Your task to perform on an android device: Open Yahoo.com Image 0: 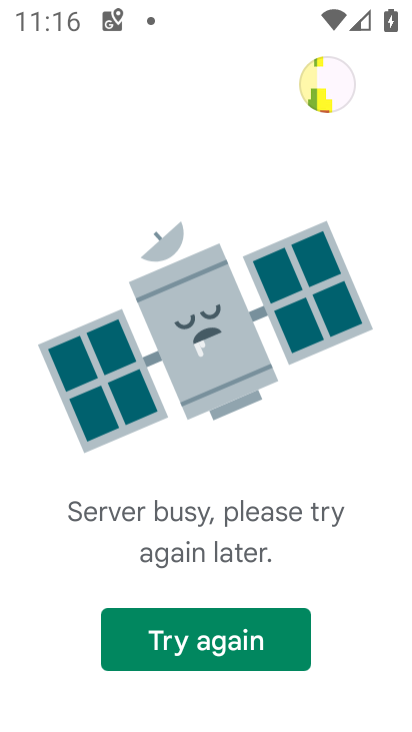
Step 0: press home button
Your task to perform on an android device: Open Yahoo.com Image 1: 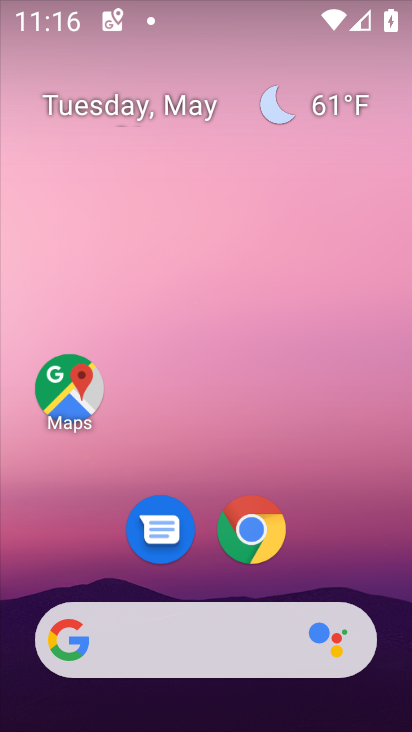
Step 1: drag from (358, 586) to (237, 261)
Your task to perform on an android device: Open Yahoo.com Image 2: 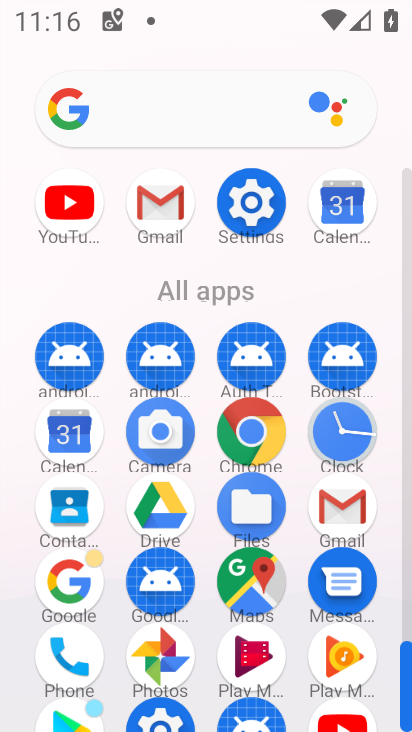
Step 2: click (251, 439)
Your task to perform on an android device: Open Yahoo.com Image 3: 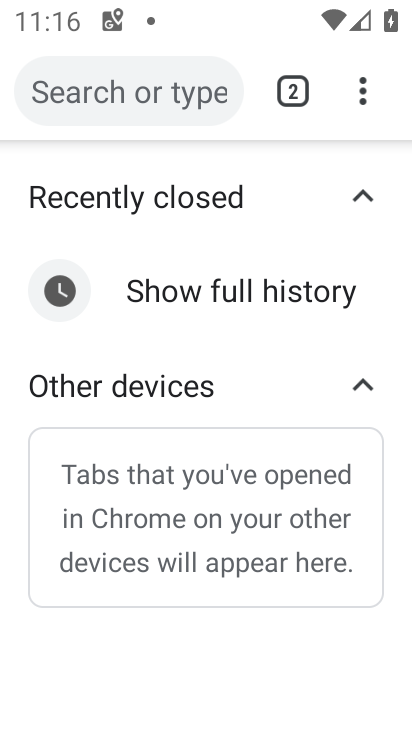
Step 3: click (294, 101)
Your task to perform on an android device: Open Yahoo.com Image 4: 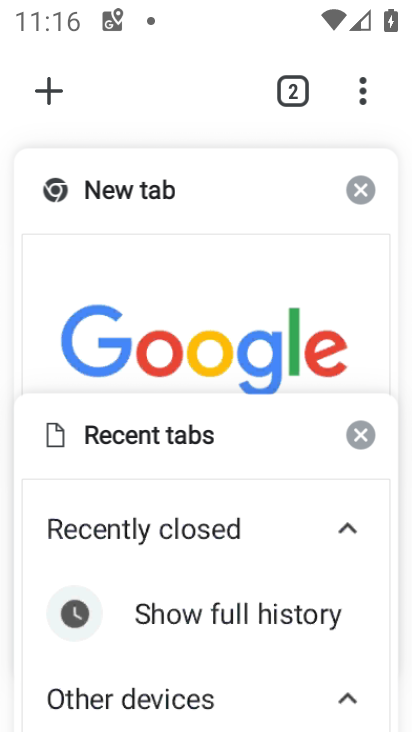
Step 4: click (117, 259)
Your task to perform on an android device: Open Yahoo.com Image 5: 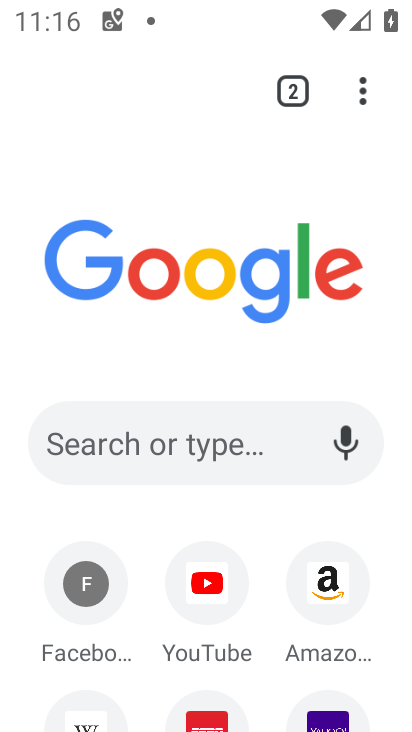
Step 5: drag from (205, 539) to (166, 177)
Your task to perform on an android device: Open Yahoo.com Image 6: 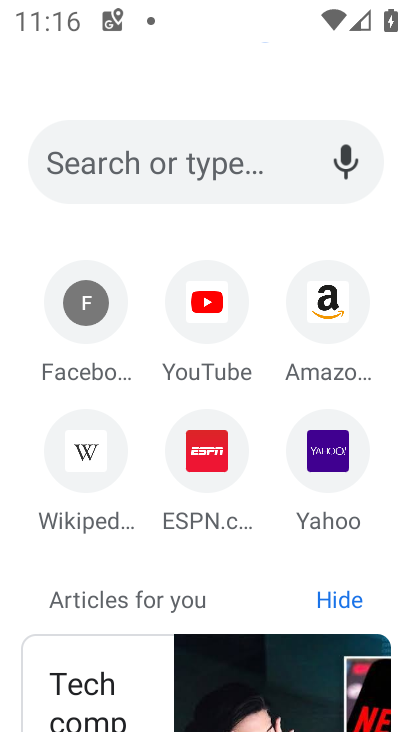
Step 6: click (334, 466)
Your task to perform on an android device: Open Yahoo.com Image 7: 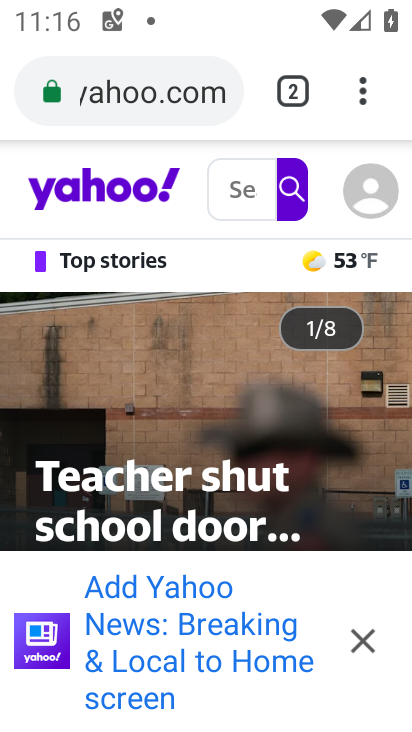
Step 7: click (368, 643)
Your task to perform on an android device: Open Yahoo.com Image 8: 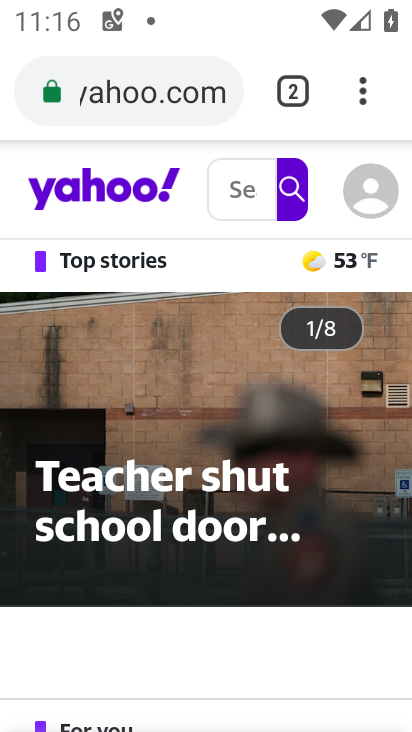
Step 8: task complete